Your task to perform on an android device: What's the weather today? Image 0: 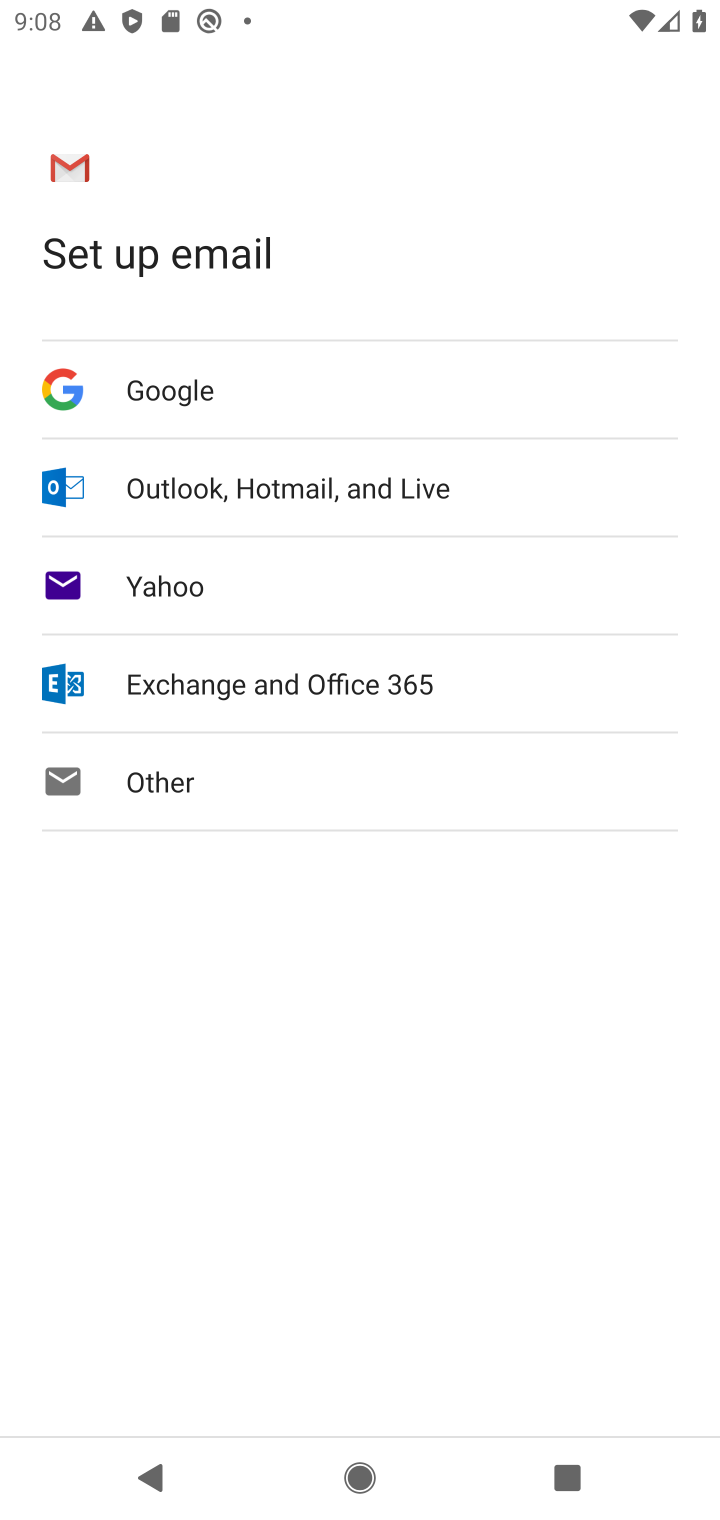
Step 0: press home button
Your task to perform on an android device: What's the weather today? Image 1: 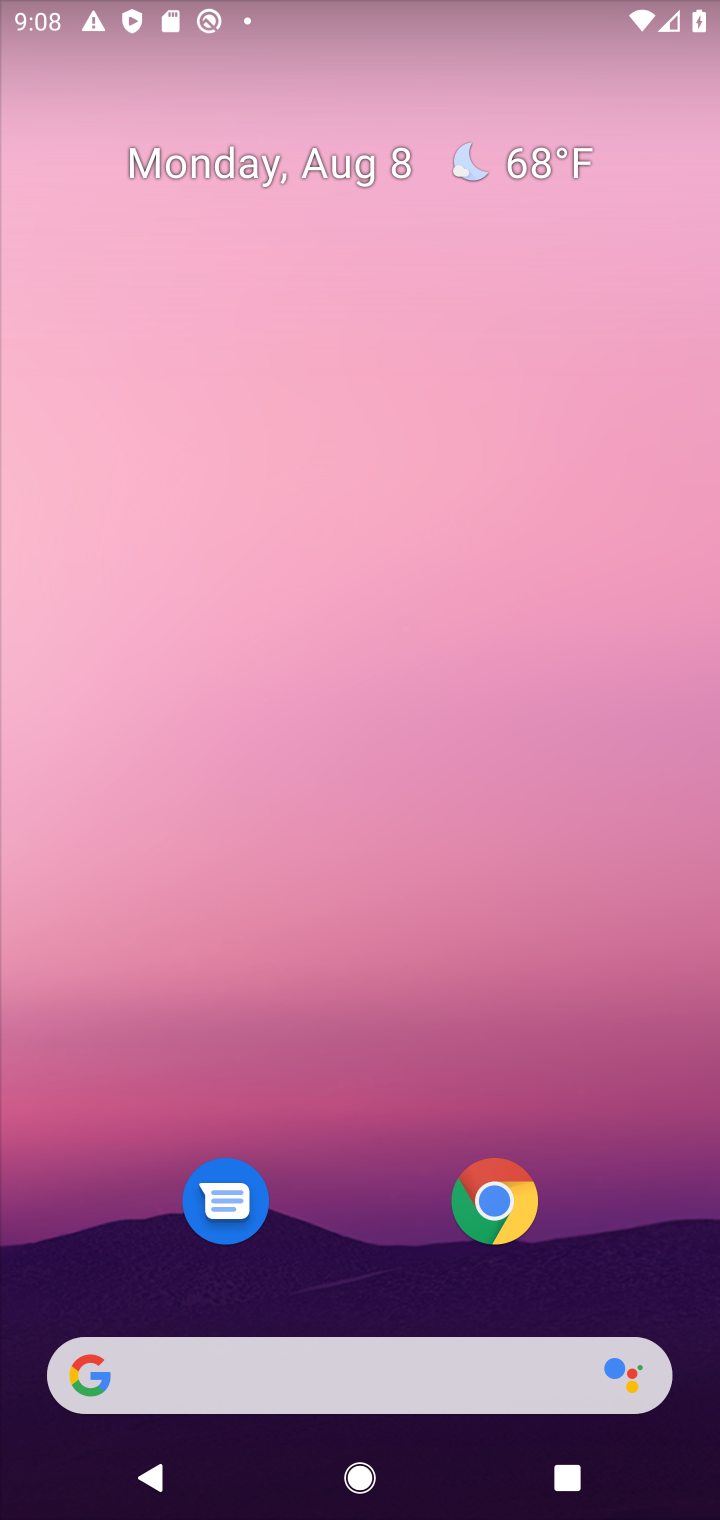
Step 1: click (368, 1361)
Your task to perform on an android device: What's the weather today? Image 2: 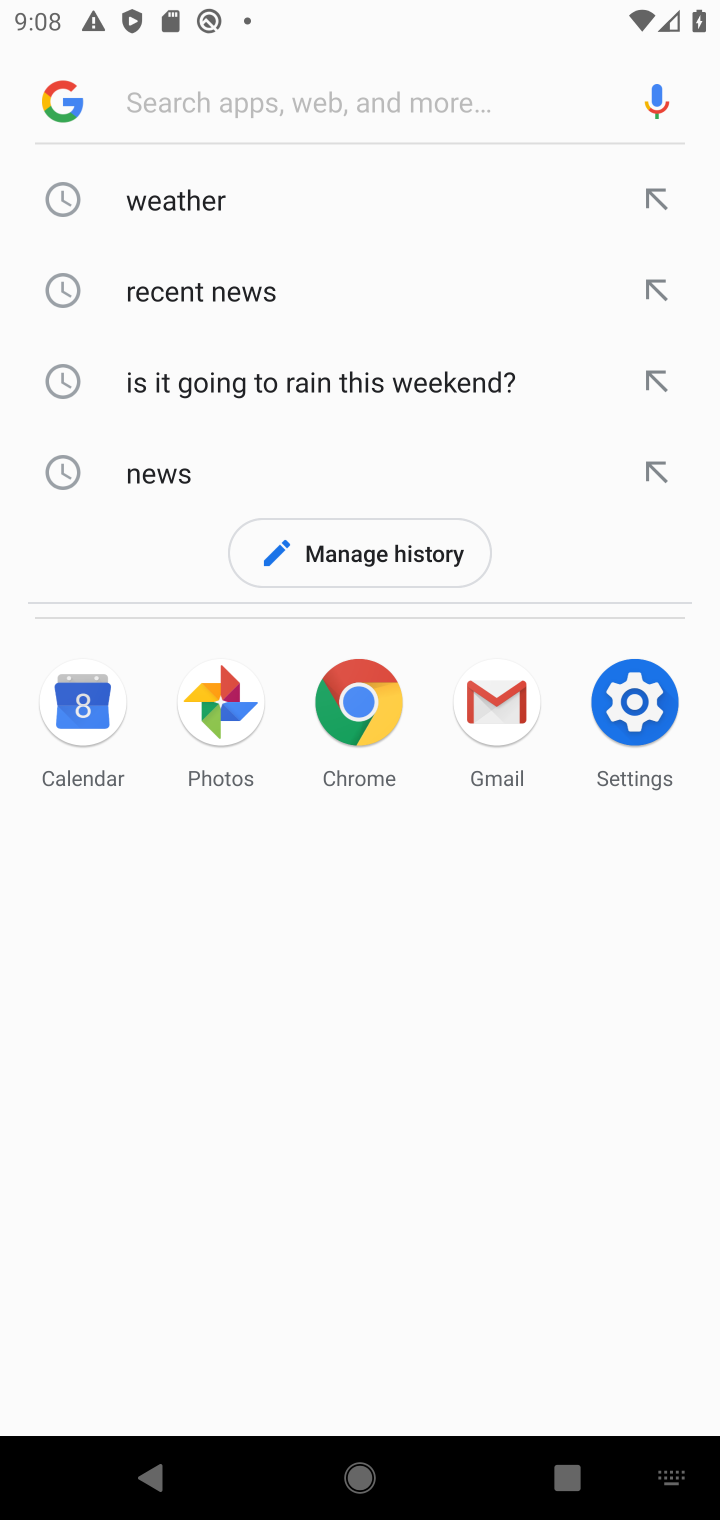
Step 2: click (223, 190)
Your task to perform on an android device: What's the weather today? Image 3: 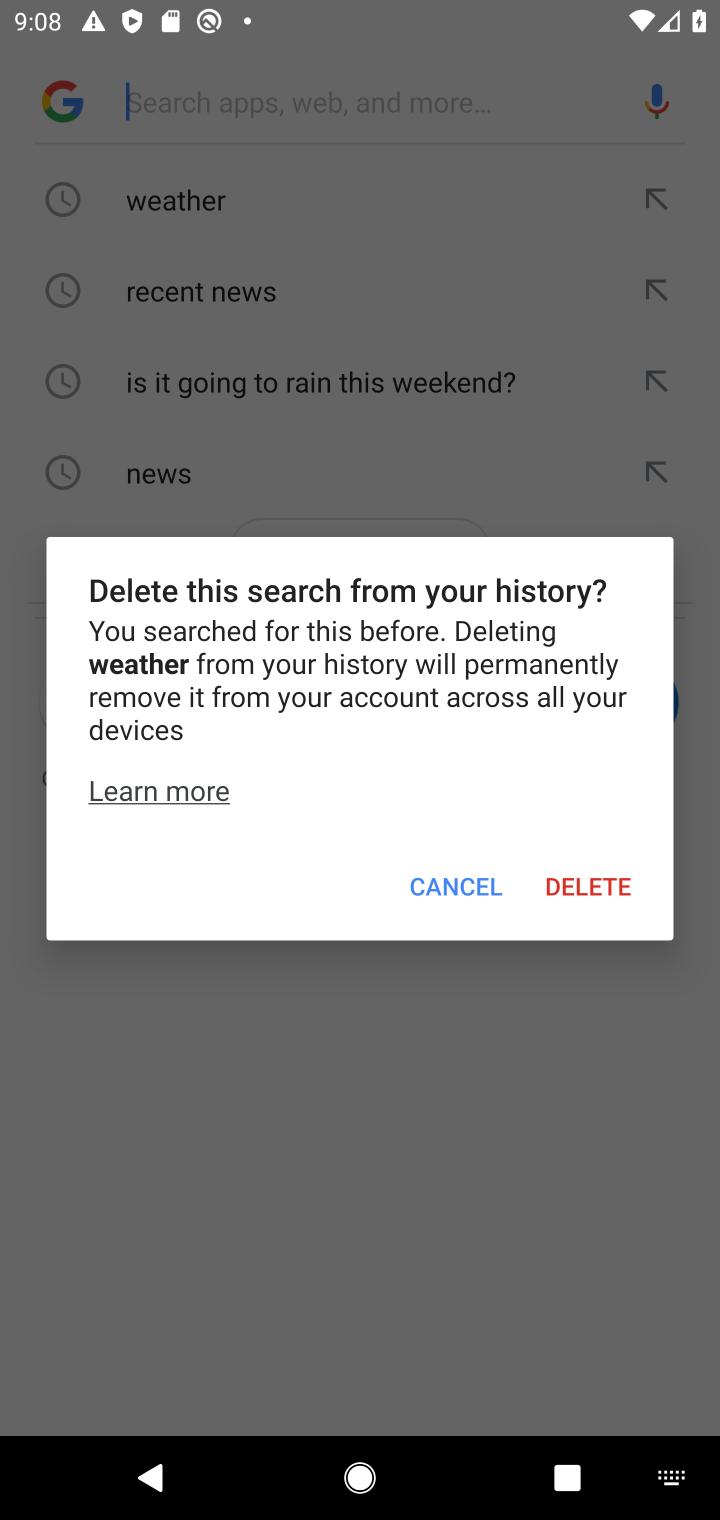
Step 3: click (487, 891)
Your task to perform on an android device: What's the weather today? Image 4: 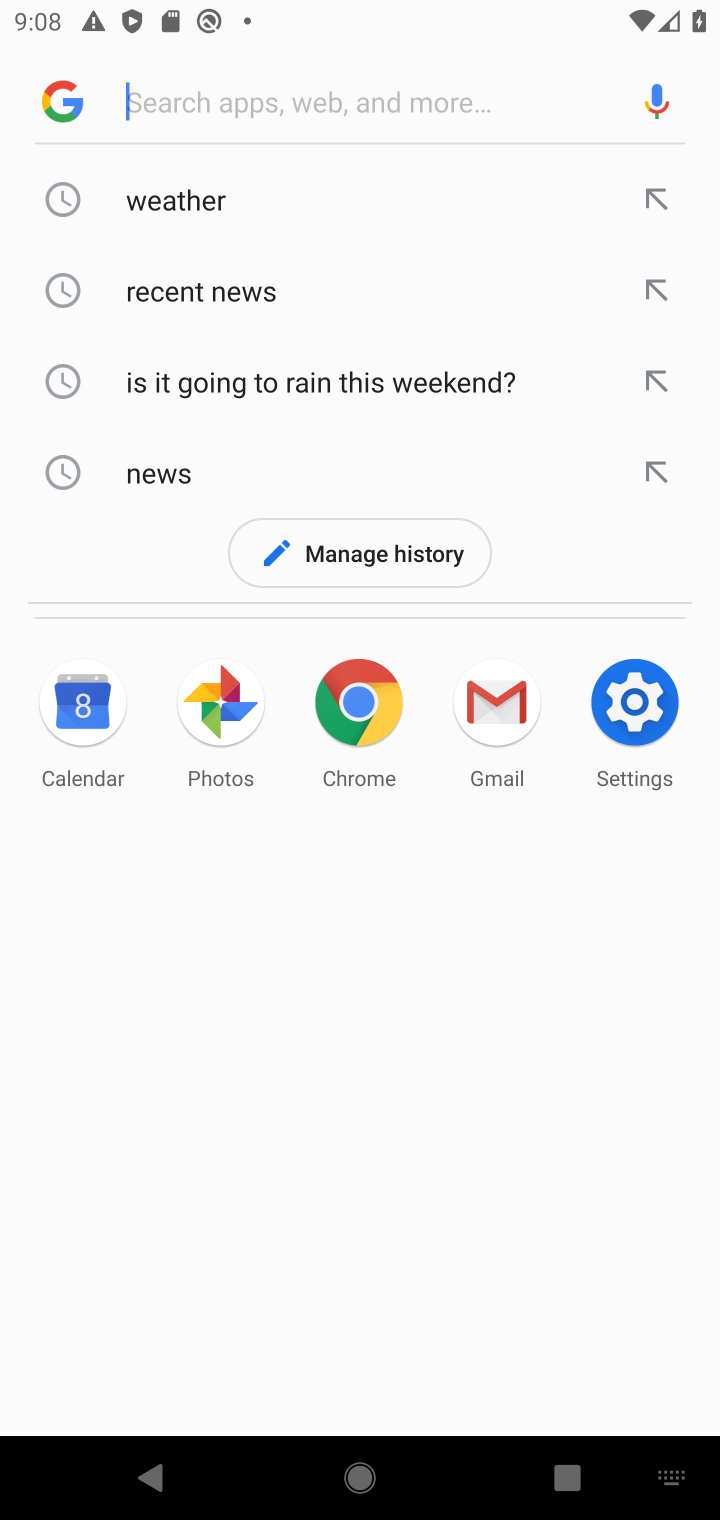
Step 4: click (181, 196)
Your task to perform on an android device: What's the weather today? Image 5: 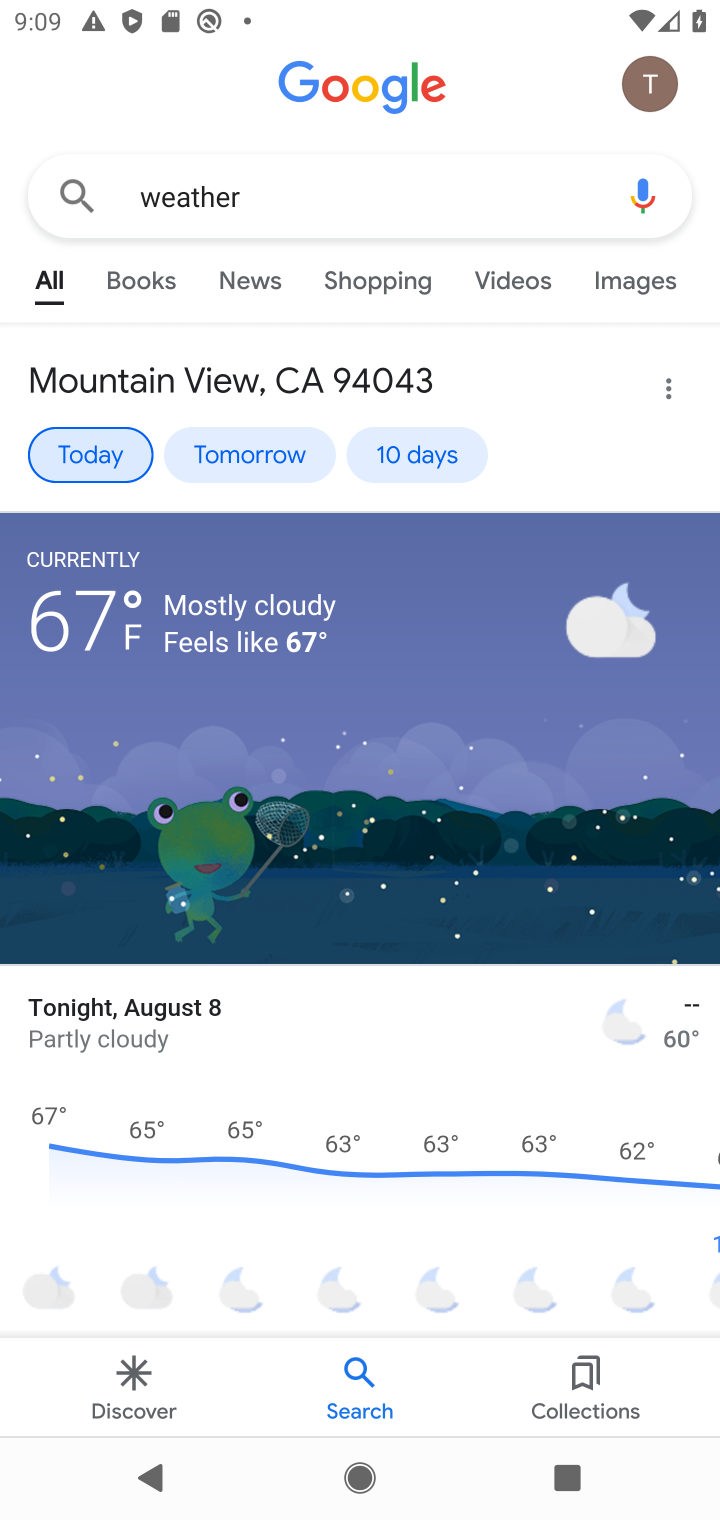
Step 5: task complete